Your task to perform on an android device: find which apps use the phone's location Image 0: 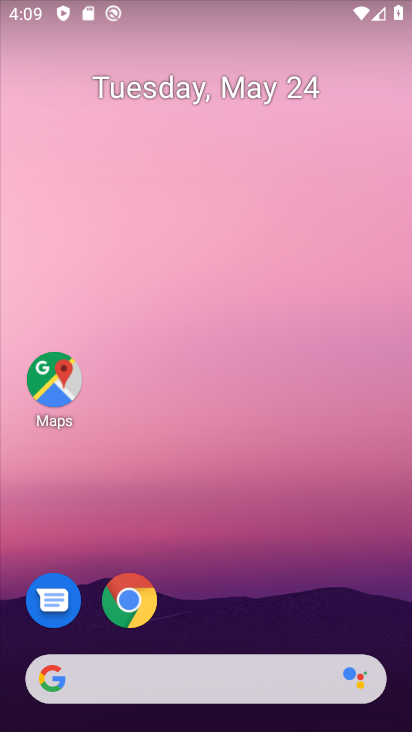
Step 0: drag from (271, 636) to (278, 29)
Your task to perform on an android device: find which apps use the phone's location Image 1: 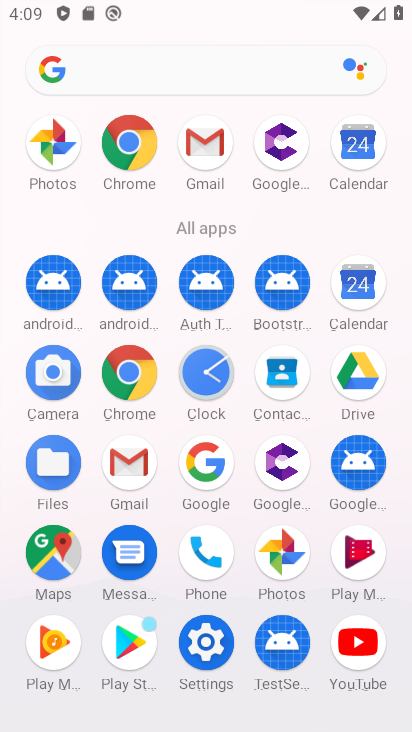
Step 1: click (200, 650)
Your task to perform on an android device: find which apps use the phone's location Image 2: 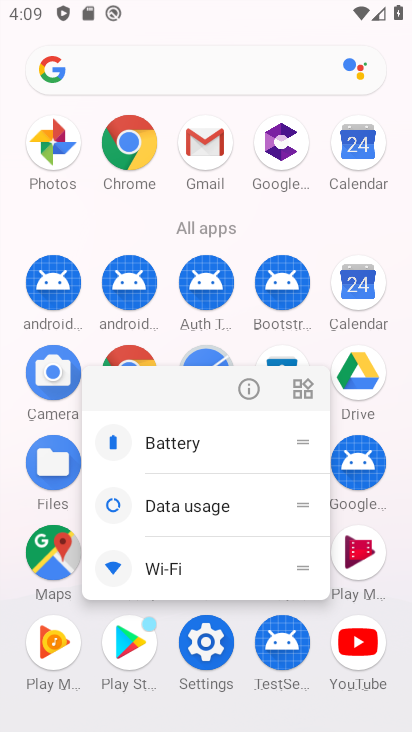
Step 2: click (200, 650)
Your task to perform on an android device: find which apps use the phone's location Image 3: 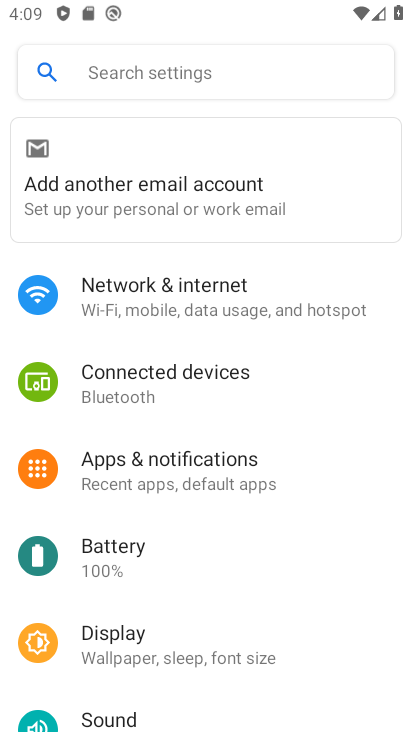
Step 3: drag from (265, 552) to (256, 170)
Your task to perform on an android device: find which apps use the phone's location Image 4: 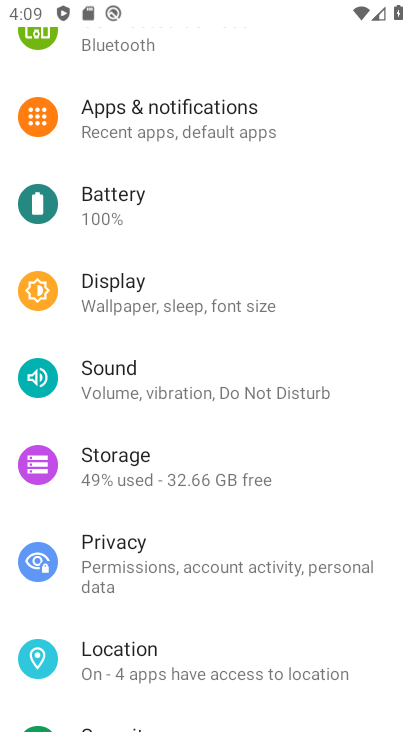
Step 4: click (111, 662)
Your task to perform on an android device: find which apps use the phone's location Image 5: 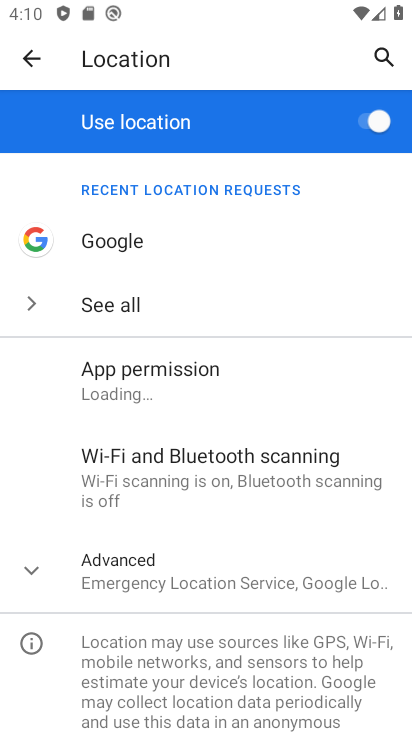
Step 5: click (131, 381)
Your task to perform on an android device: find which apps use the phone's location Image 6: 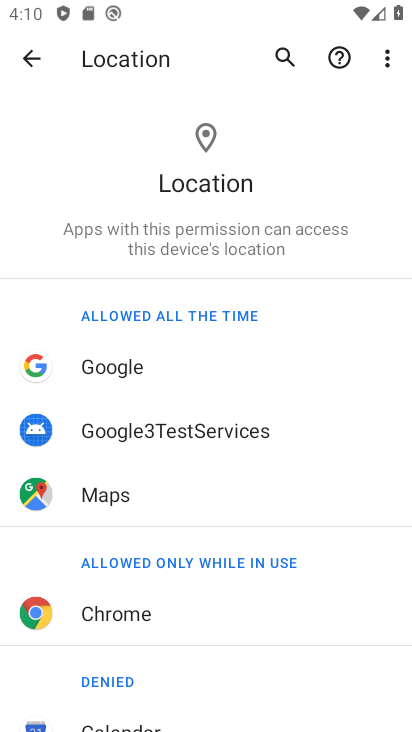
Step 6: task complete